Your task to perform on an android device: check data usage Image 0: 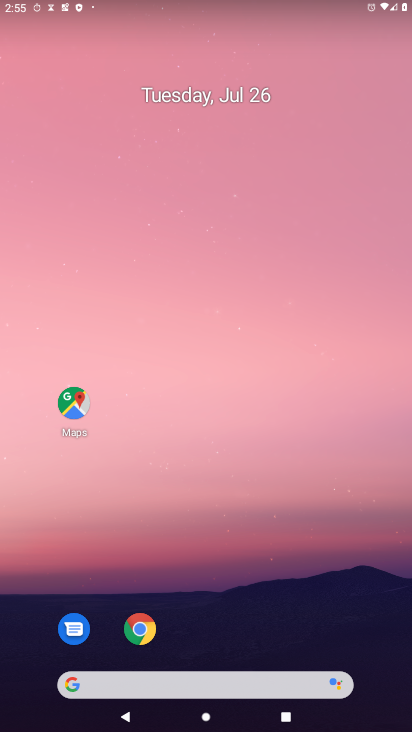
Step 0: drag from (275, 700) to (320, 12)
Your task to perform on an android device: check data usage Image 1: 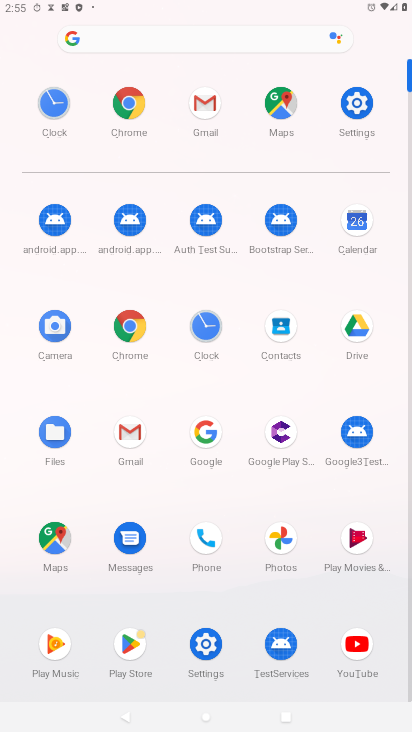
Step 1: click (349, 91)
Your task to perform on an android device: check data usage Image 2: 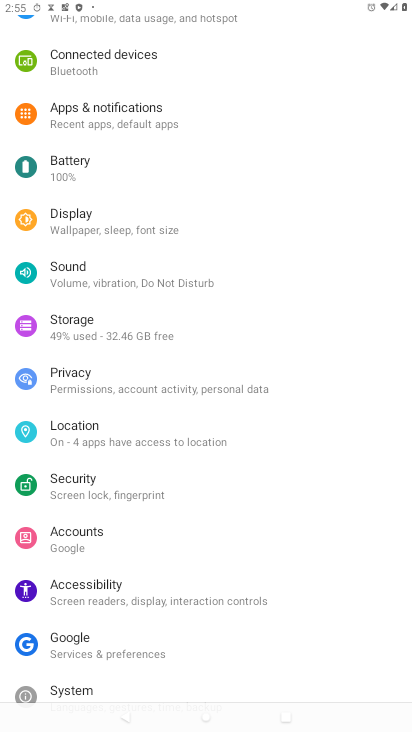
Step 2: drag from (202, 231) to (225, 726)
Your task to perform on an android device: check data usage Image 3: 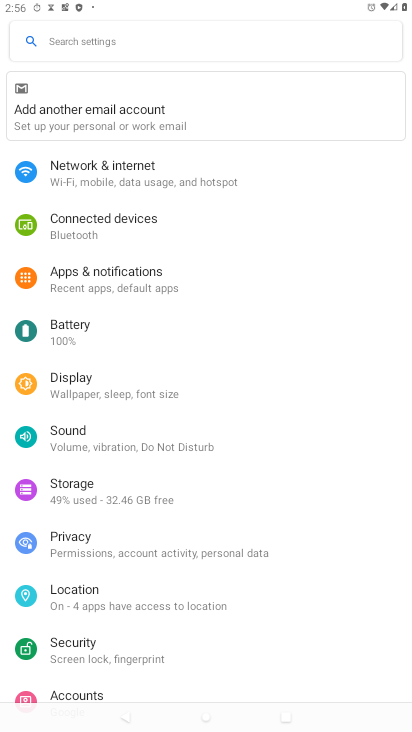
Step 3: click (154, 178)
Your task to perform on an android device: check data usage Image 4: 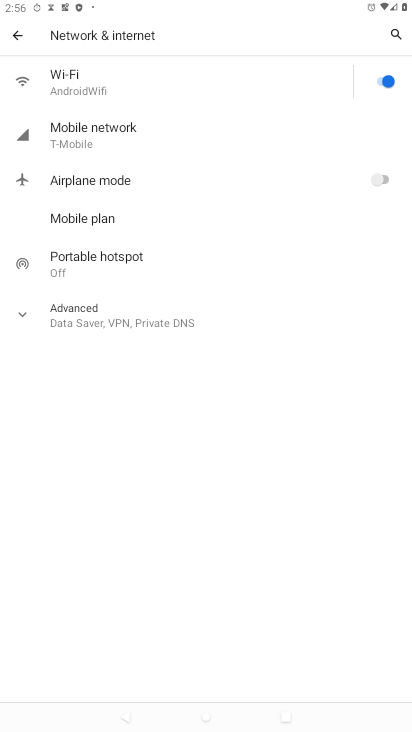
Step 4: task complete